Your task to perform on an android device: Open Maps and search for coffee Image 0: 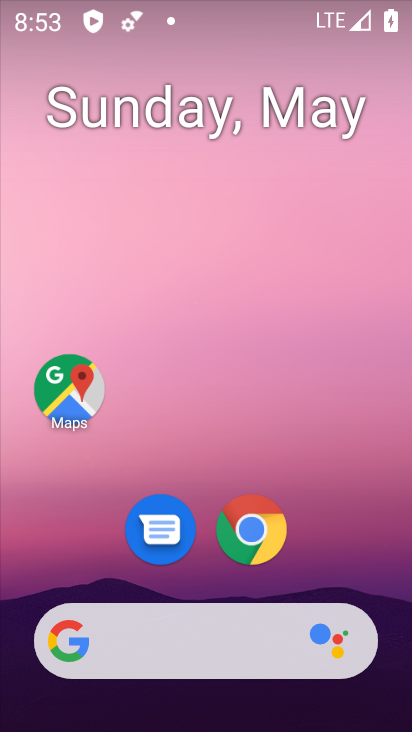
Step 0: drag from (195, 574) to (174, 0)
Your task to perform on an android device: Open Maps and search for coffee Image 1: 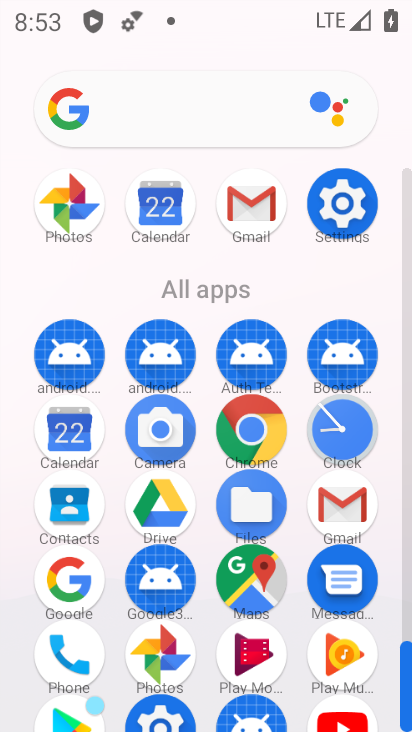
Step 1: click (247, 566)
Your task to perform on an android device: Open Maps and search for coffee Image 2: 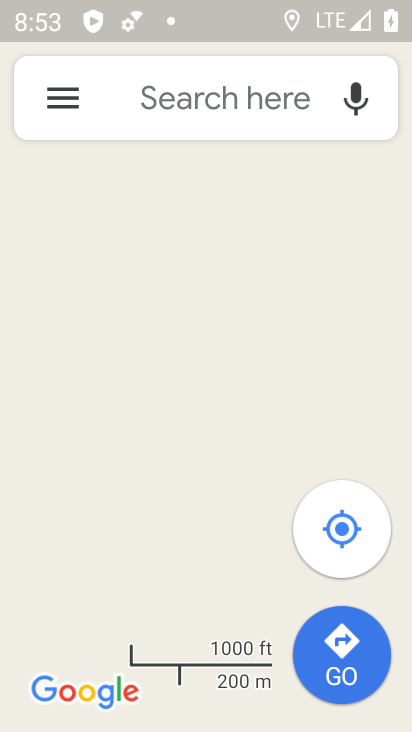
Step 2: click (172, 107)
Your task to perform on an android device: Open Maps and search for coffee Image 3: 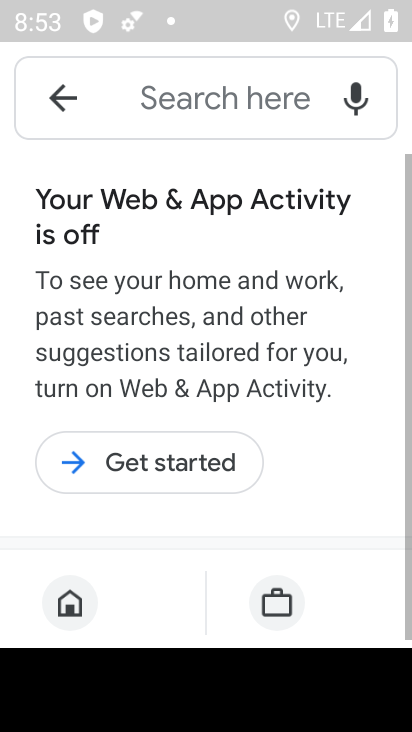
Step 3: type "coffee"
Your task to perform on an android device: Open Maps and search for coffee Image 4: 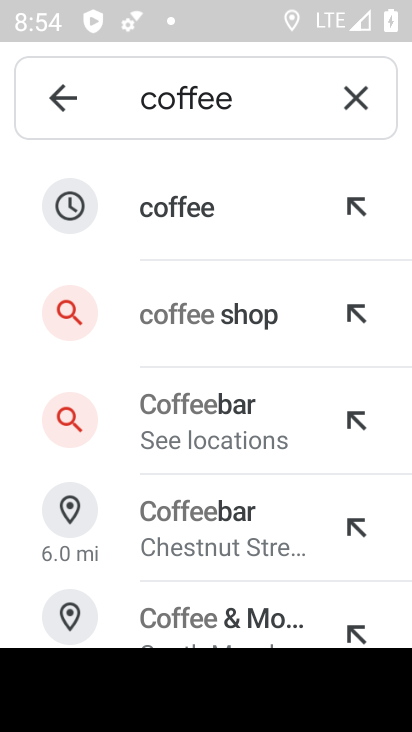
Step 4: click (181, 228)
Your task to perform on an android device: Open Maps and search for coffee Image 5: 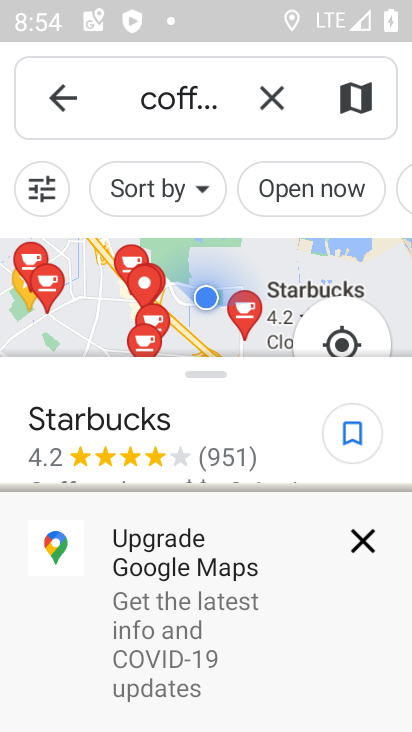
Step 5: click (358, 531)
Your task to perform on an android device: Open Maps and search for coffee Image 6: 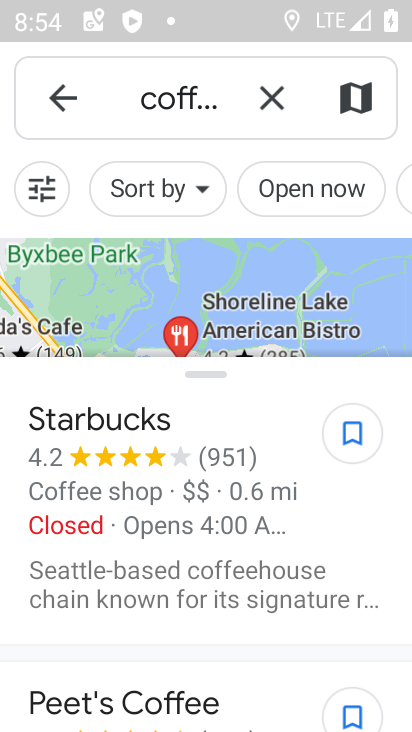
Step 6: task complete